Your task to perform on an android device: Go to Google maps Image 0: 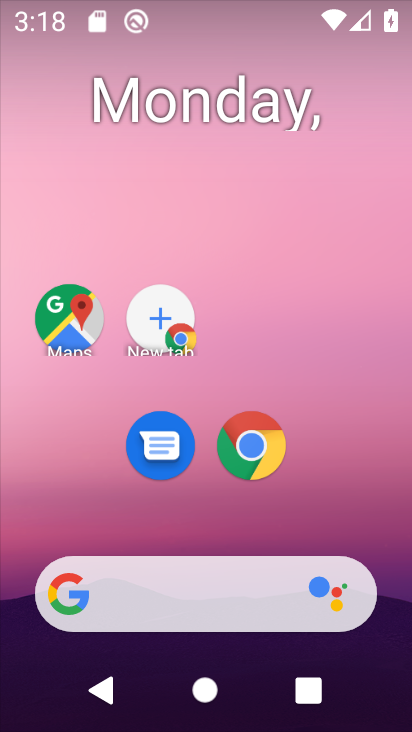
Step 0: press home button
Your task to perform on an android device: Go to Google maps Image 1: 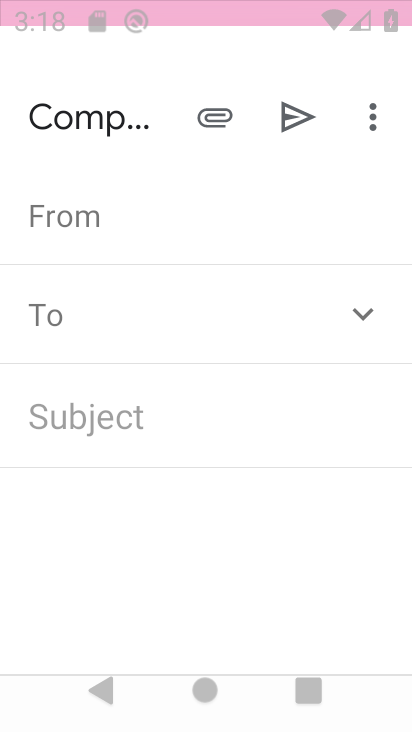
Step 1: drag from (212, 498) to (195, 102)
Your task to perform on an android device: Go to Google maps Image 2: 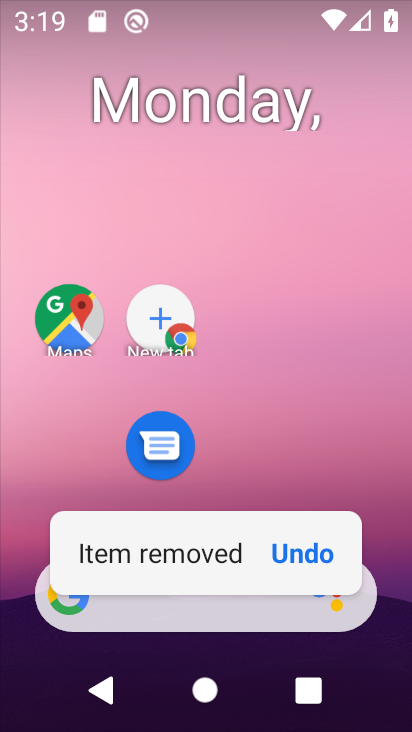
Step 2: click (300, 556)
Your task to perform on an android device: Go to Google maps Image 3: 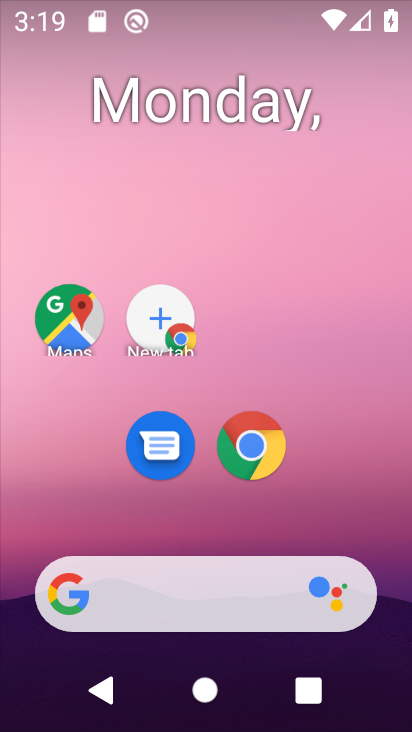
Step 3: drag from (319, 505) to (300, 20)
Your task to perform on an android device: Go to Google maps Image 4: 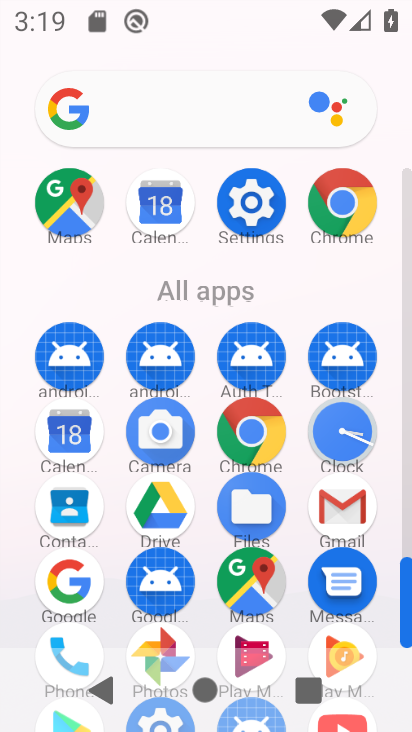
Step 4: click (68, 199)
Your task to perform on an android device: Go to Google maps Image 5: 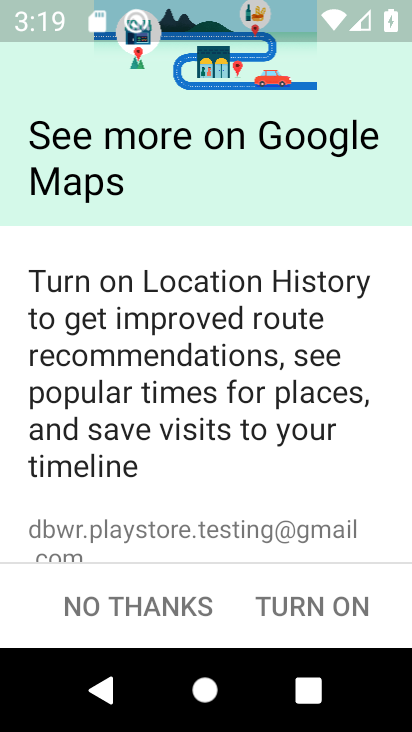
Step 5: click (166, 597)
Your task to perform on an android device: Go to Google maps Image 6: 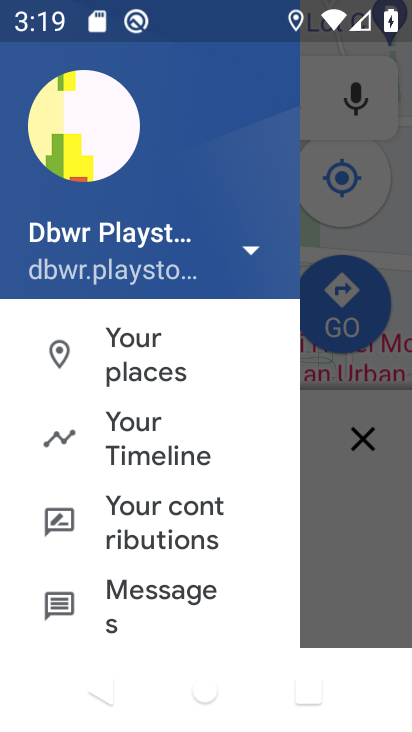
Step 6: drag from (215, 562) to (212, 148)
Your task to perform on an android device: Go to Google maps Image 7: 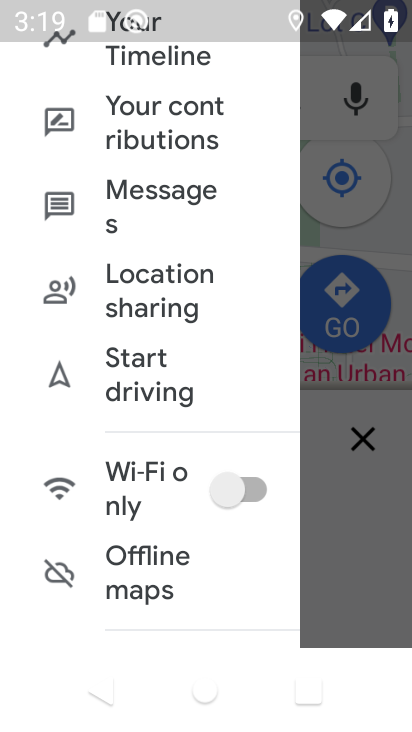
Step 7: click (336, 515)
Your task to perform on an android device: Go to Google maps Image 8: 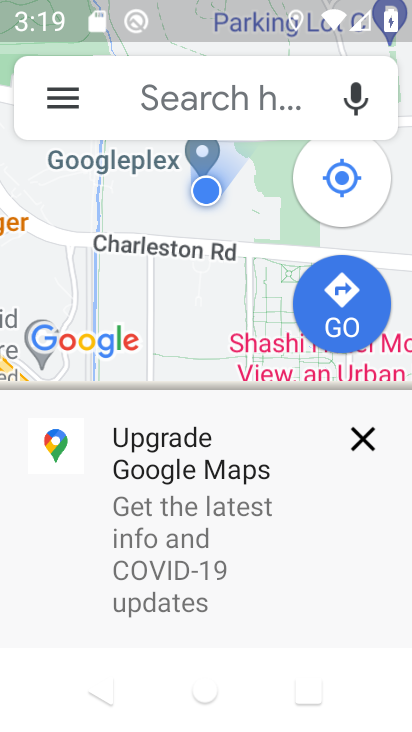
Step 8: click (358, 435)
Your task to perform on an android device: Go to Google maps Image 9: 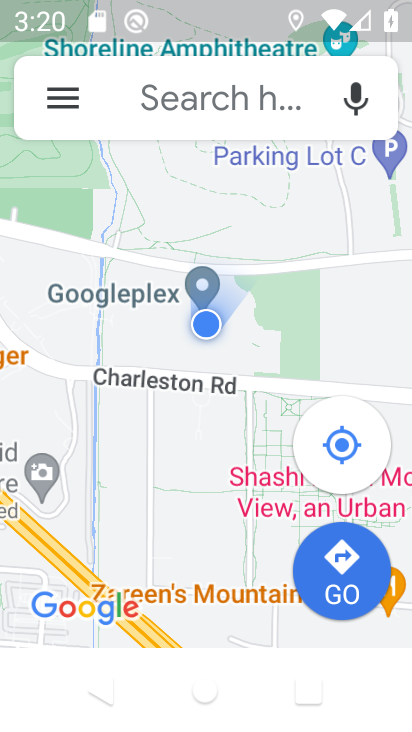
Step 9: task complete